Your task to perform on an android device: Search for flights from Tokyo to Seoul Image 0: 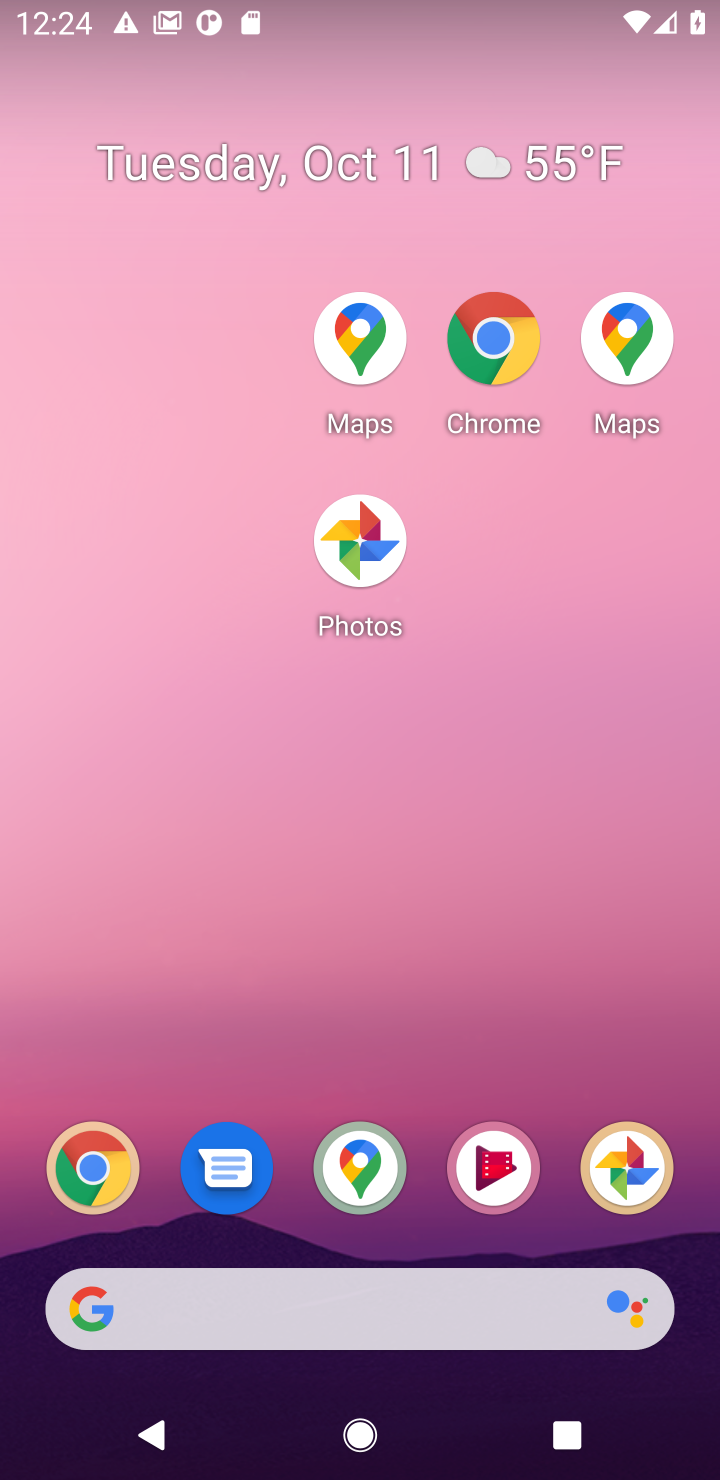
Step 0: drag from (490, 1086) to (588, 45)
Your task to perform on an android device: Search for flights from Tokyo to Seoul Image 1: 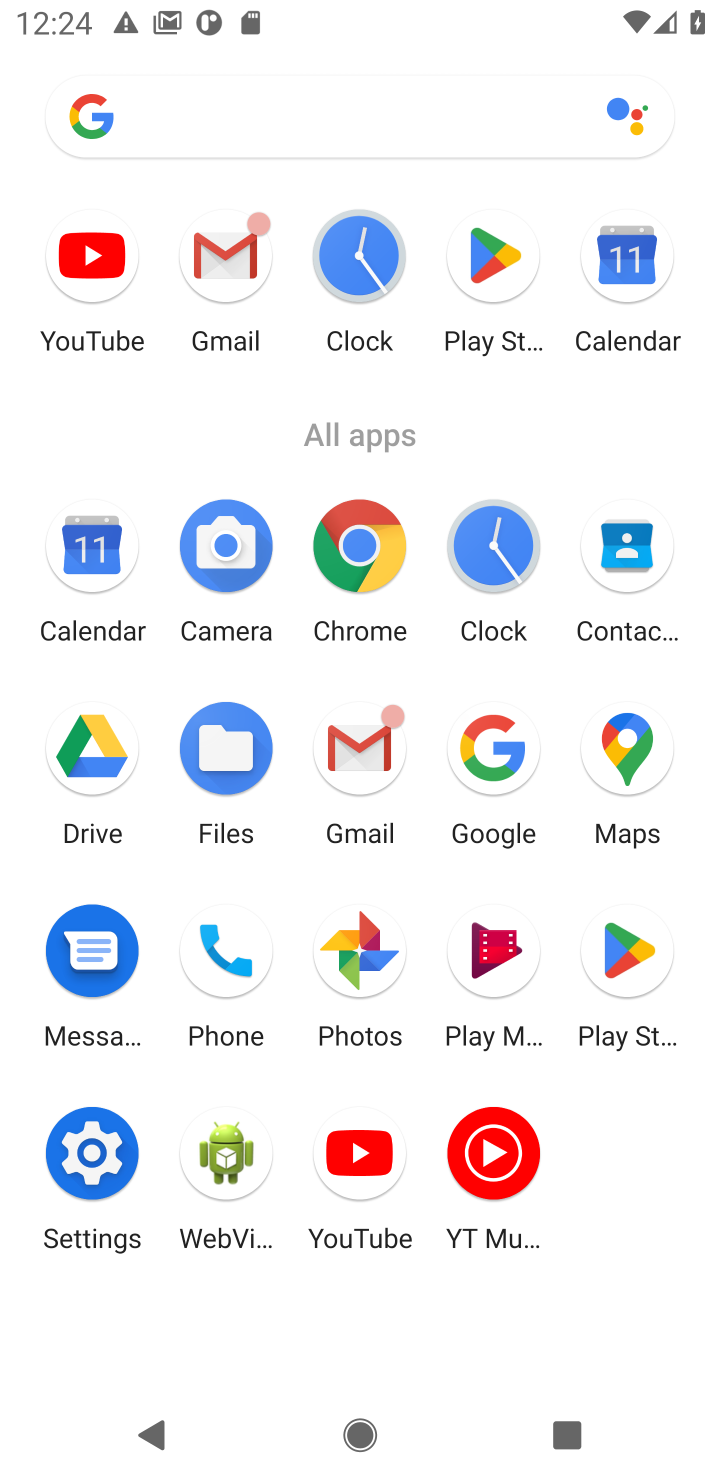
Step 1: click (514, 753)
Your task to perform on an android device: Search for flights from Tokyo to Seoul Image 2: 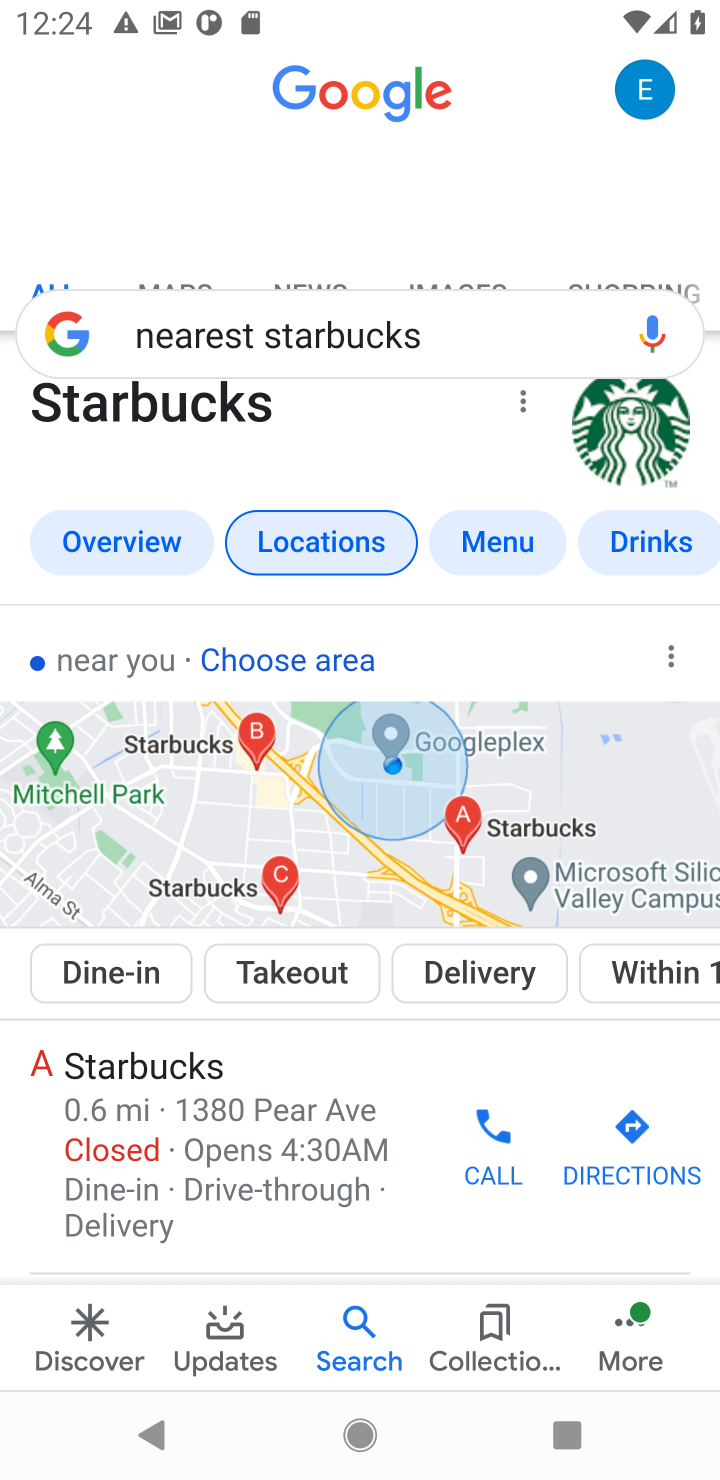
Step 2: click (449, 328)
Your task to perform on an android device: Search for flights from Tokyo to Seoul Image 3: 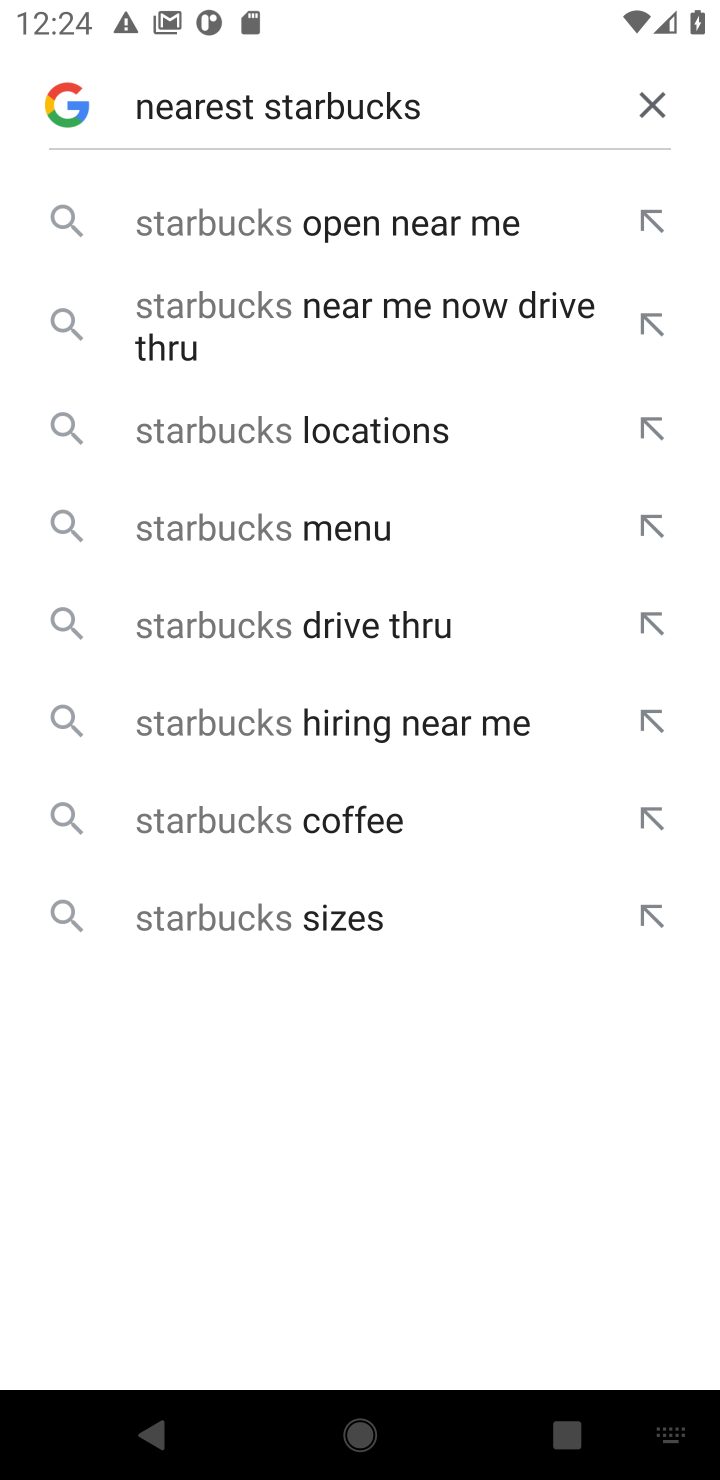
Step 3: click (642, 111)
Your task to perform on an android device: Search for flights from Tokyo to Seoul Image 4: 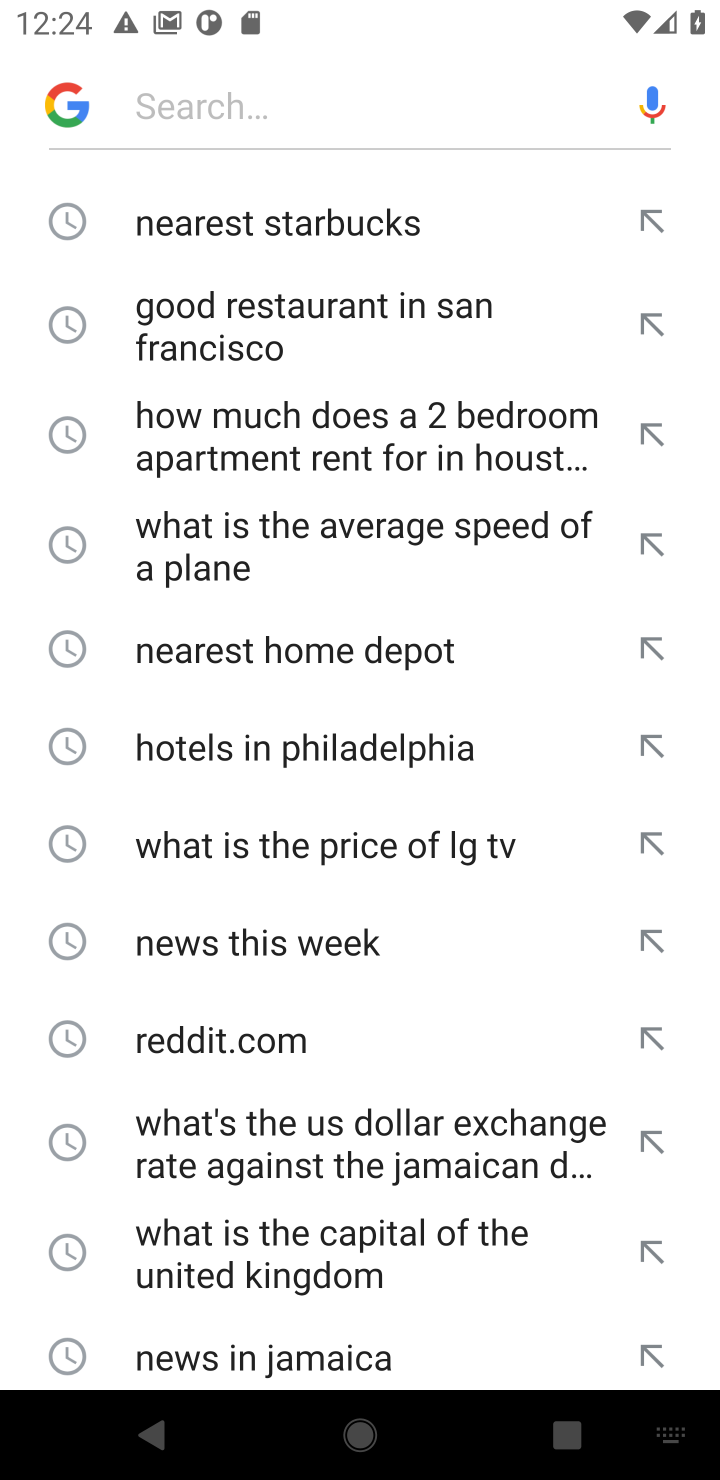
Step 4: type "flights from Tokyo to Seoul"
Your task to perform on an android device: Search for flights from Tokyo to Seoul Image 5: 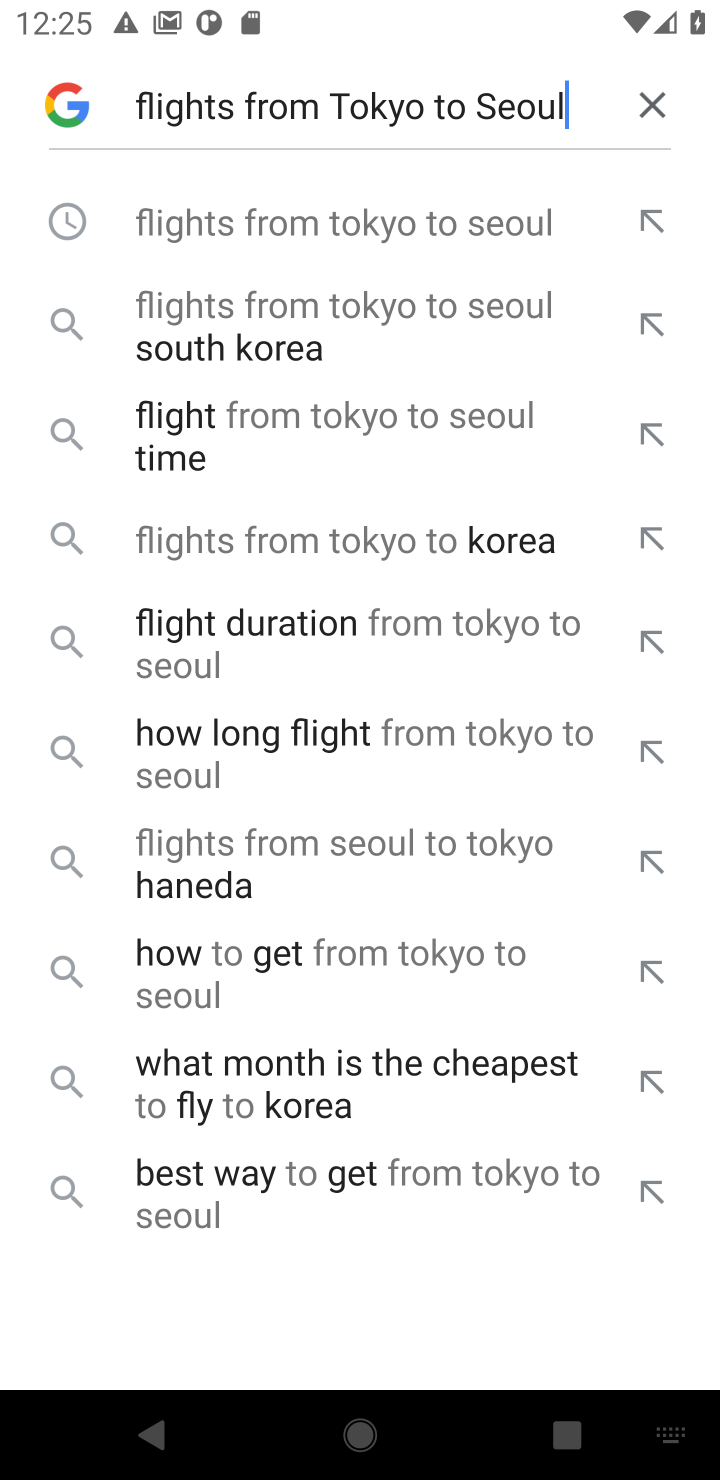
Step 5: click (518, 244)
Your task to perform on an android device: Search for flights from Tokyo to Seoul Image 6: 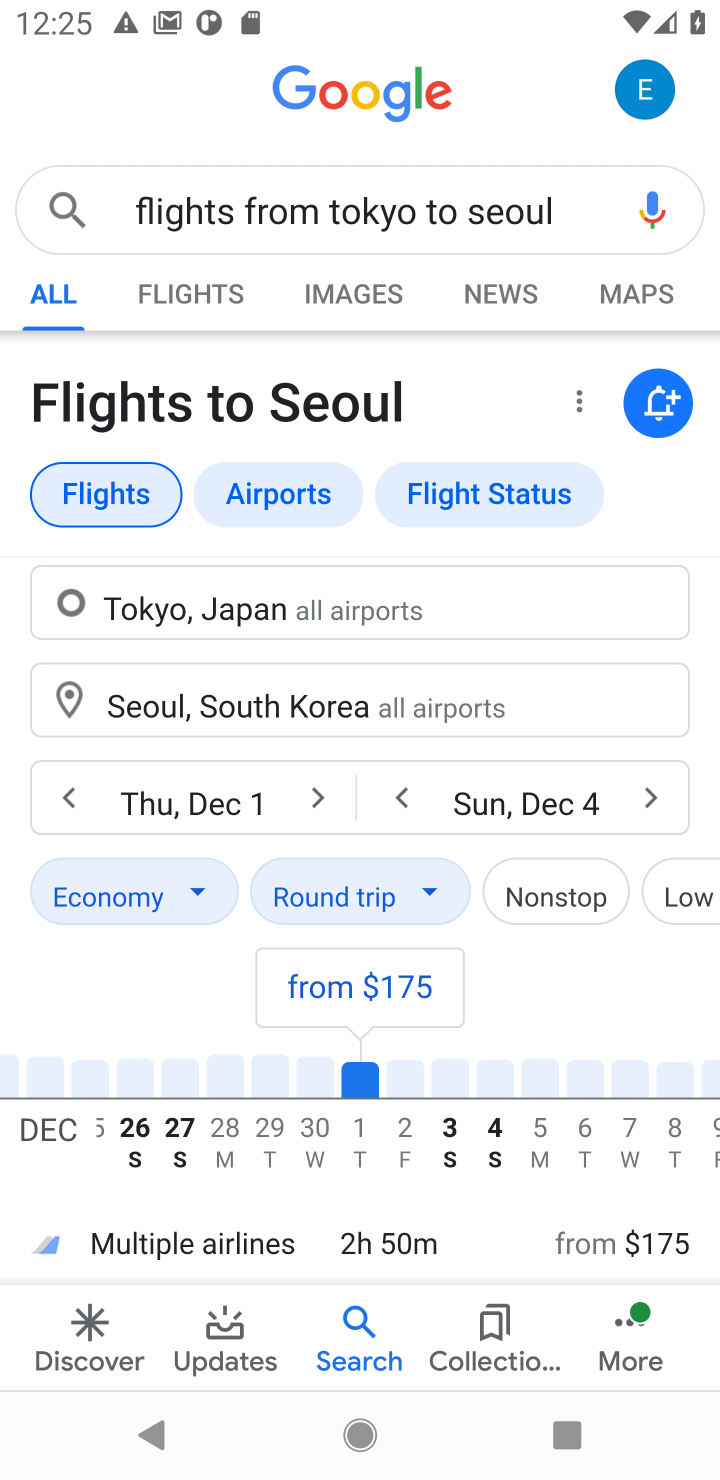
Step 6: task complete